Your task to perform on an android device: turn off location Image 0: 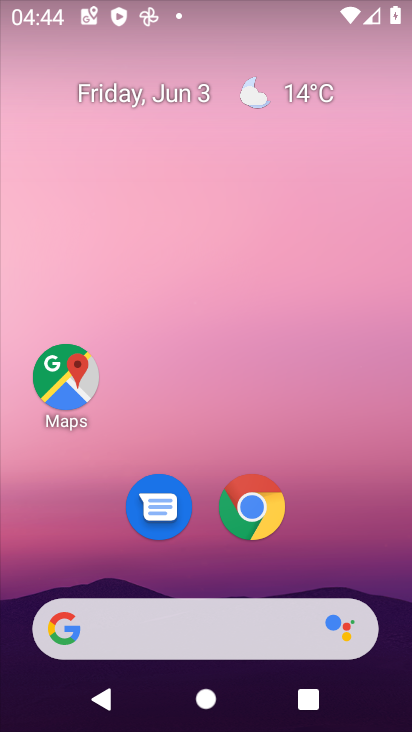
Step 0: drag from (361, 574) to (336, 71)
Your task to perform on an android device: turn off location Image 1: 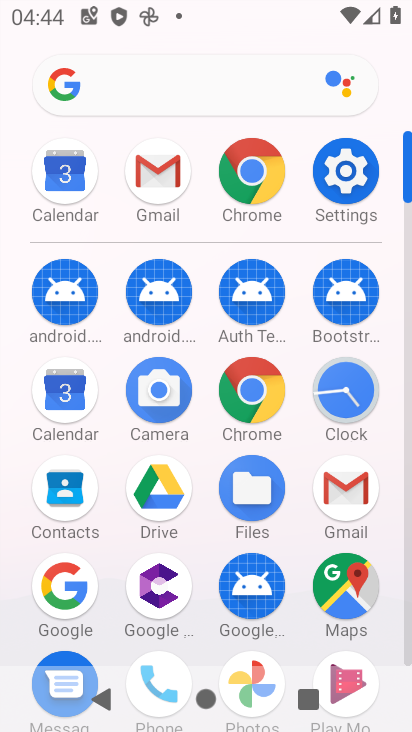
Step 1: click (331, 179)
Your task to perform on an android device: turn off location Image 2: 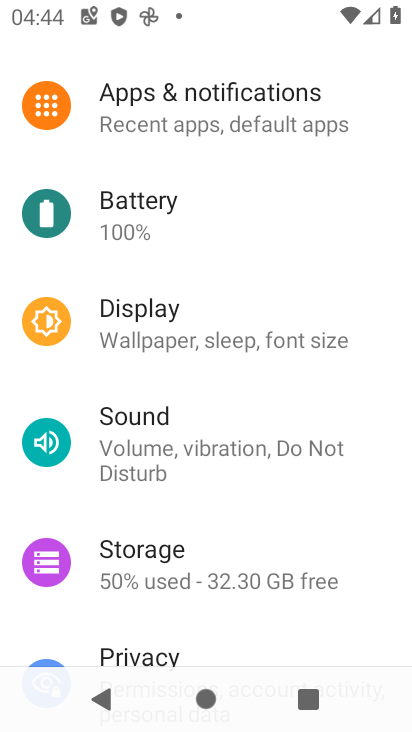
Step 2: drag from (314, 627) to (251, 268)
Your task to perform on an android device: turn off location Image 3: 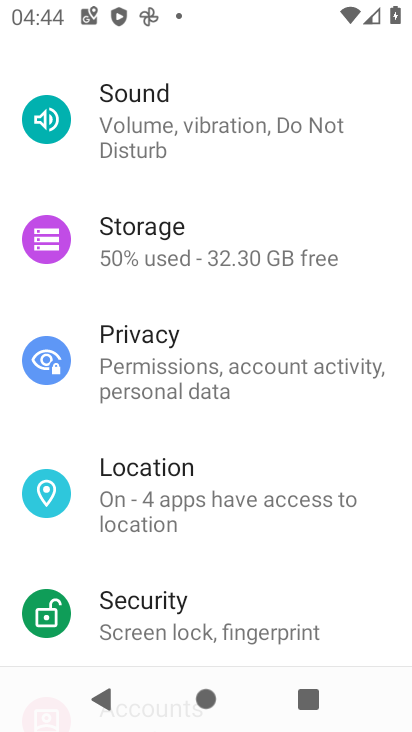
Step 3: click (235, 481)
Your task to perform on an android device: turn off location Image 4: 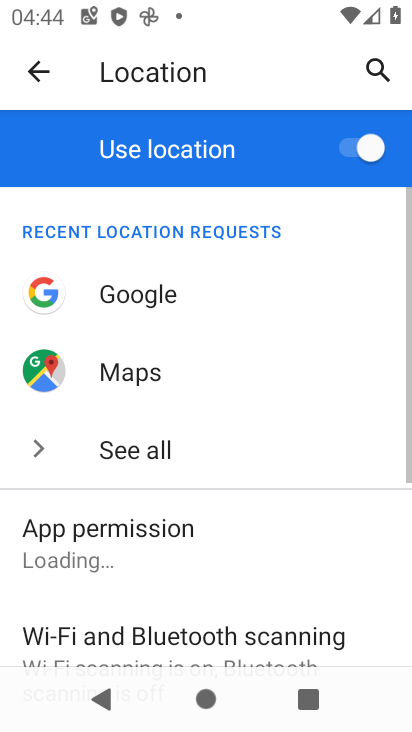
Step 4: click (363, 138)
Your task to perform on an android device: turn off location Image 5: 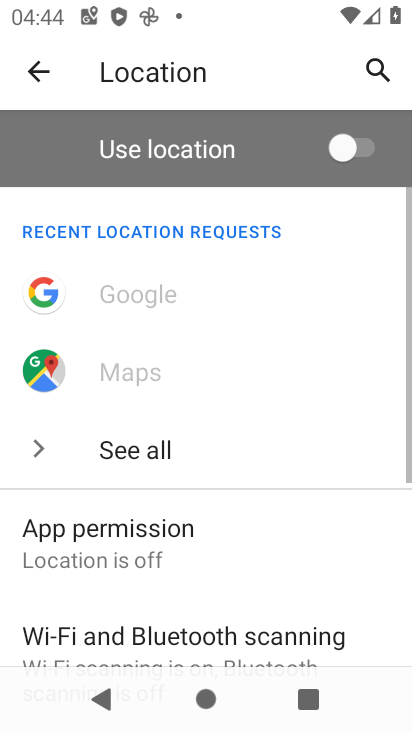
Step 5: task complete